Your task to perform on an android device: Go to Yahoo.com Image 0: 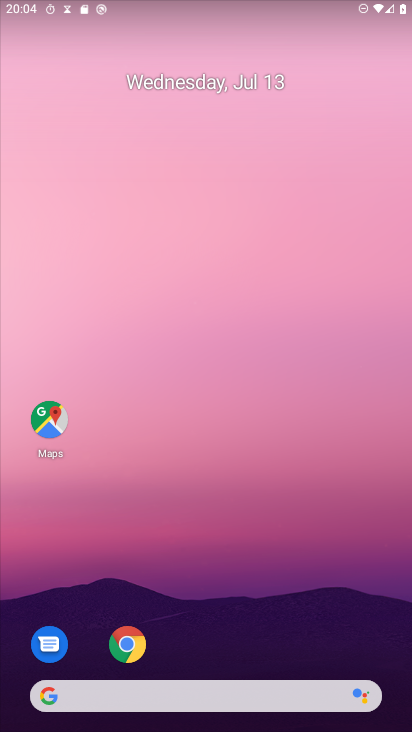
Step 0: click (133, 638)
Your task to perform on an android device: Go to Yahoo.com Image 1: 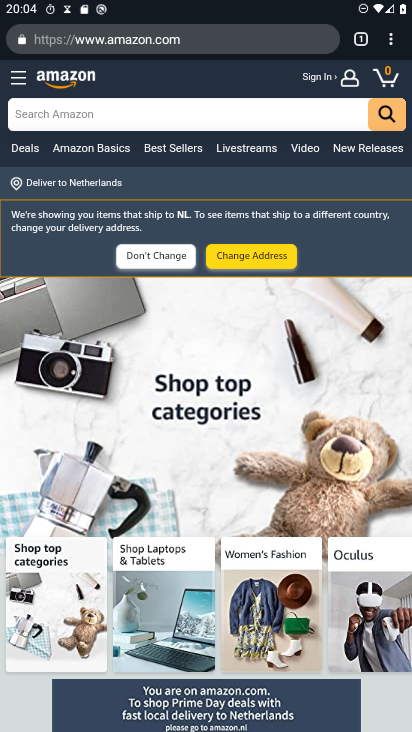
Step 1: click (182, 38)
Your task to perform on an android device: Go to Yahoo.com Image 2: 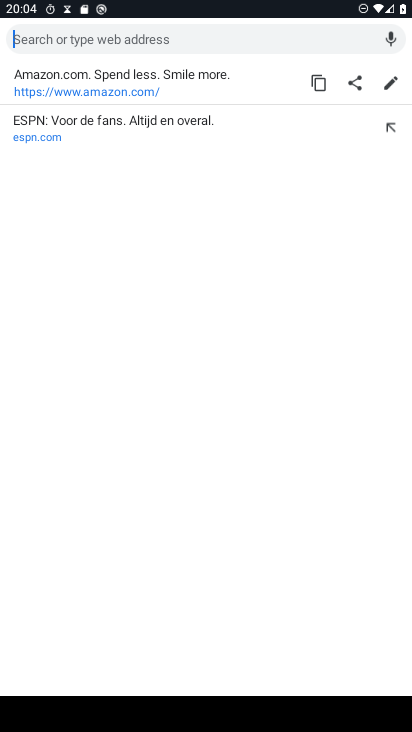
Step 2: type "yahoo.com"
Your task to perform on an android device: Go to Yahoo.com Image 3: 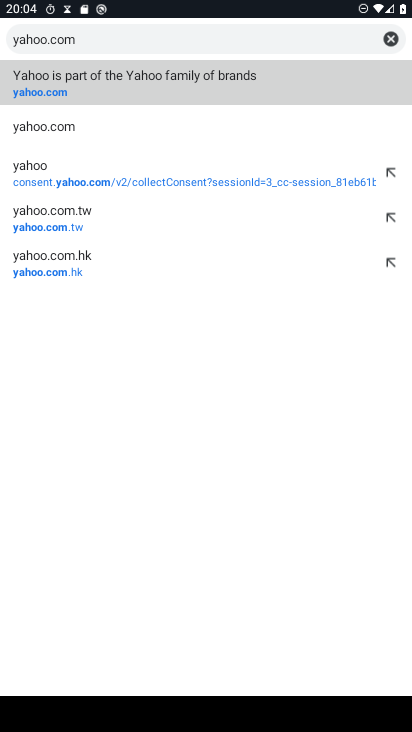
Step 3: click (120, 63)
Your task to perform on an android device: Go to Yahoo.com Image 4: 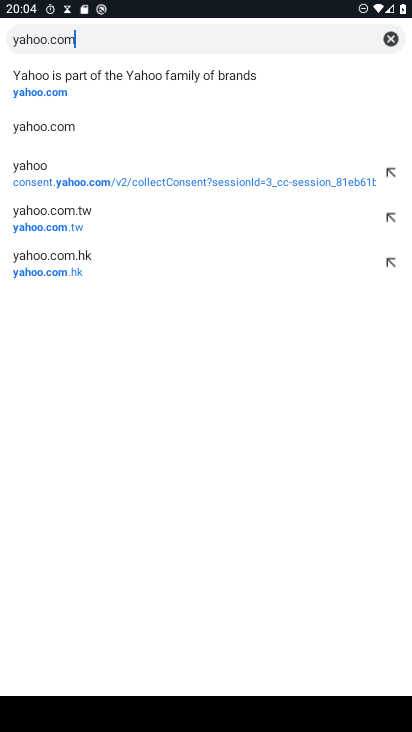
Step 4: click (122, 83)
Your task to perform on an android device: Go to Yahoo.com Image 5: 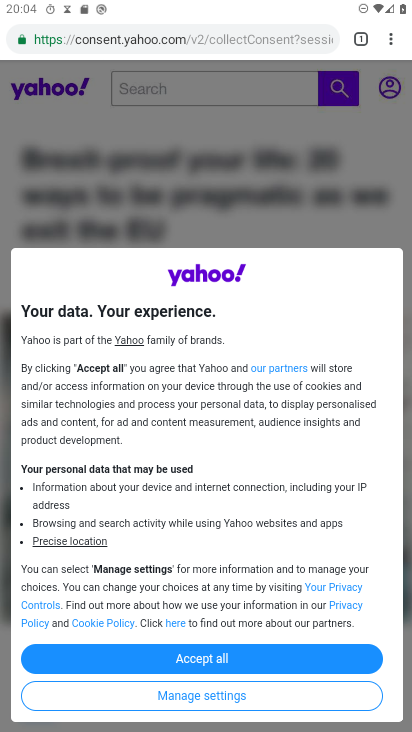
Step 5: task complete